Your task to perform on an android device: Open Maps and search for coffee Image 0: 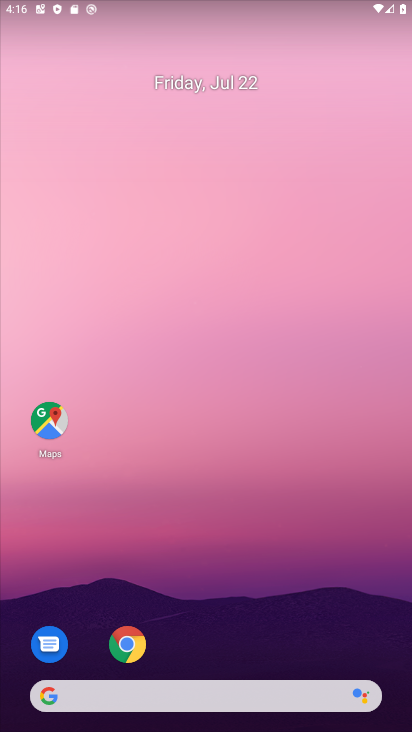
Step 0: click (51, 423)
Your task to perform on an android device: Open Maps and search for coffee Image 1: 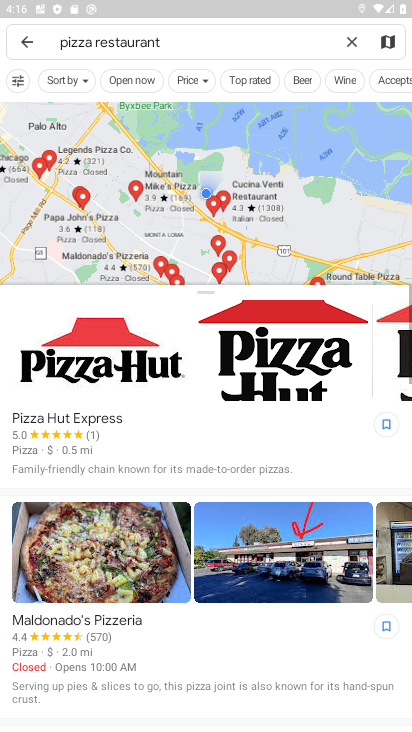
Step 1: click (340, 43)
Your task to perform on an android device: Open Maps and search for coffee Image 2: 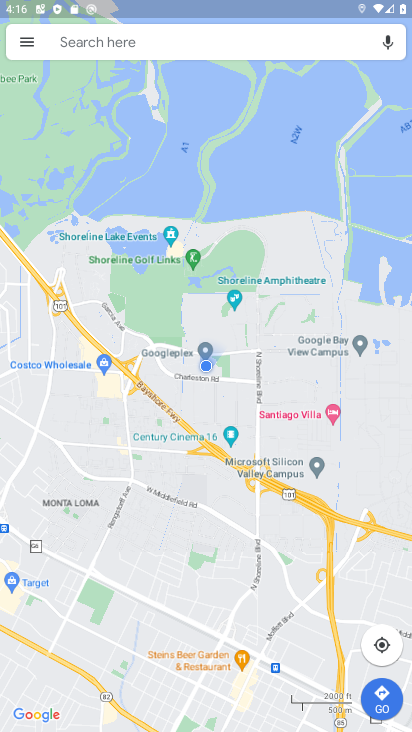
Step 2: click (134, 43)
Your task to perform on an android device: Open Maps and search for coffee Image 3: 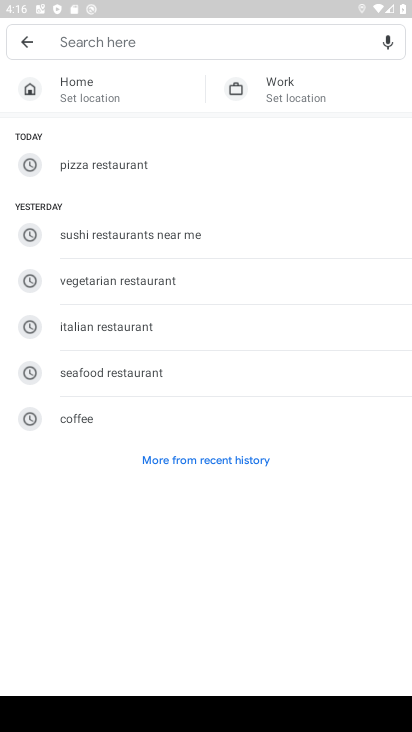
Step 3: click (85, 423)
Your task to perform on an android device: Open Maps and search for coffee Image 4: 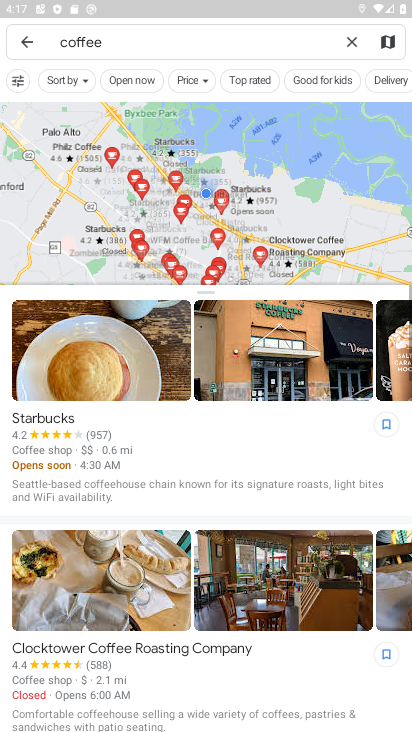
Step 4: task complete